Your task to perform on an android device: clear history in the chrome app Image 0: 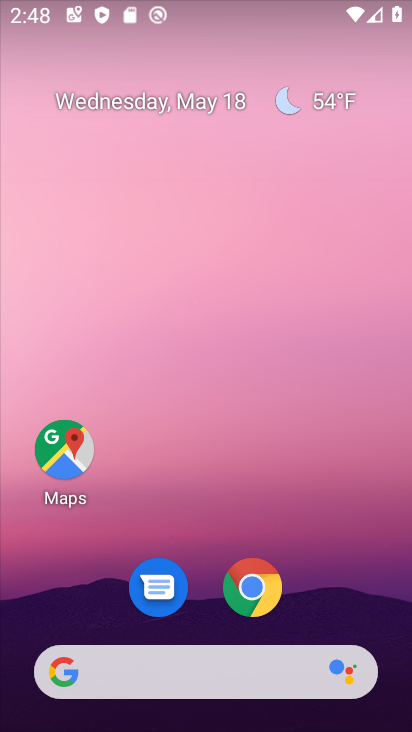
Step 0: drag from (198, 633) to (201, 363)
Your task to perform on an android device: clear history in the chrome app Image 1: 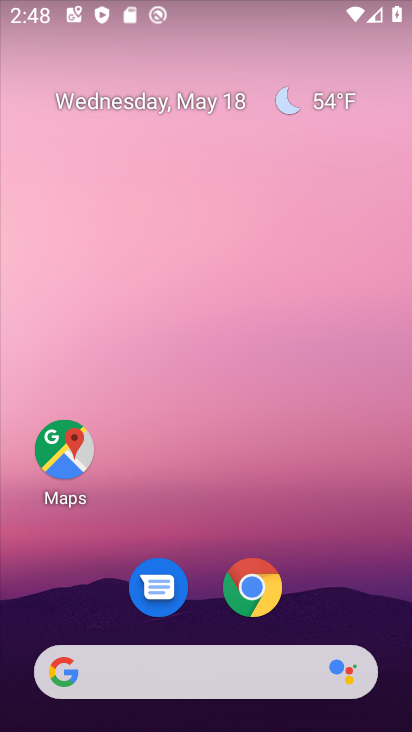
Step 1: click (254, 598)
Your task to perform on an android device: clear history in the chrome app Image 2: 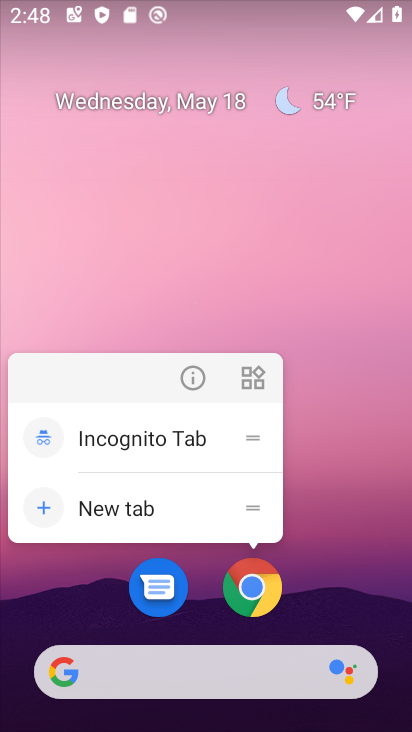
Step 2: click (178, 370)
Your task to perform on an android device: clear history in the chrome app Image 3: 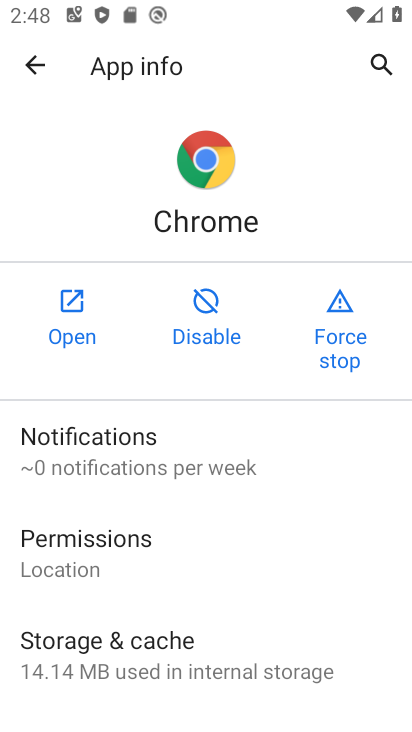
Step 3: click (76, 322)
Your task to perform on an android device: clear history in the chrome app Image 4: 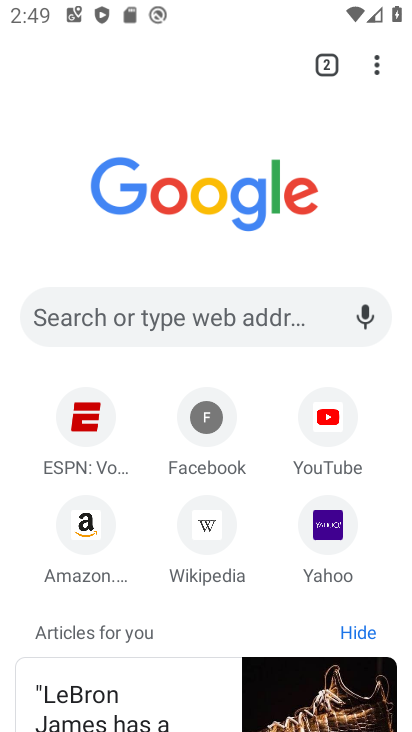
Step 4: click (371, 56)
Your task to perform on an android device: clear history in the chrome app Image 5: 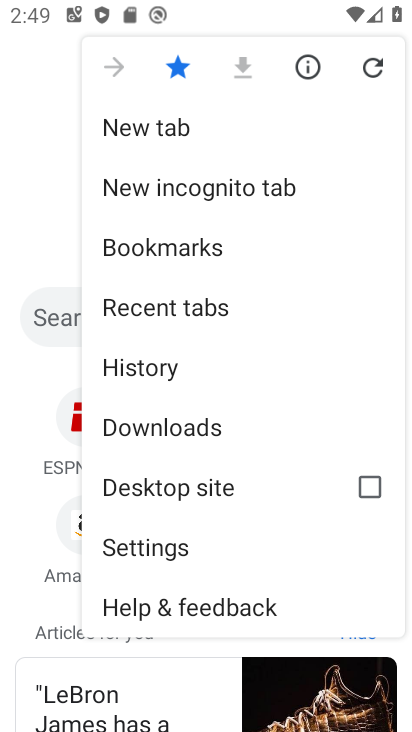
Step 5: click (173, 361)
Your task to perform on an android device: clear history in the chrome app Image 6: 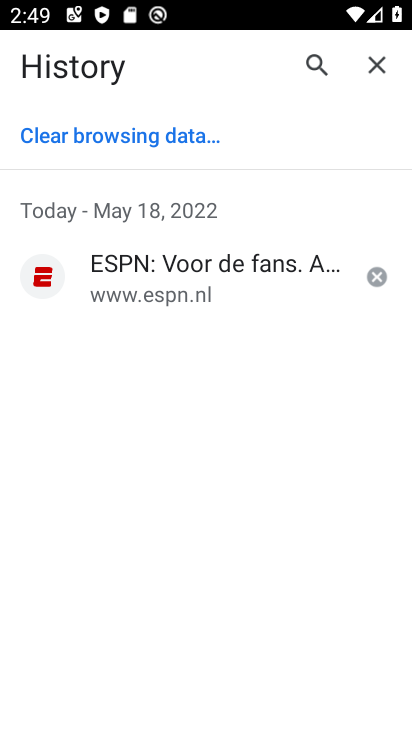
Step 6: click (52, 146)
Your task to perform on an android device: clear history in the chrome app Image 7: 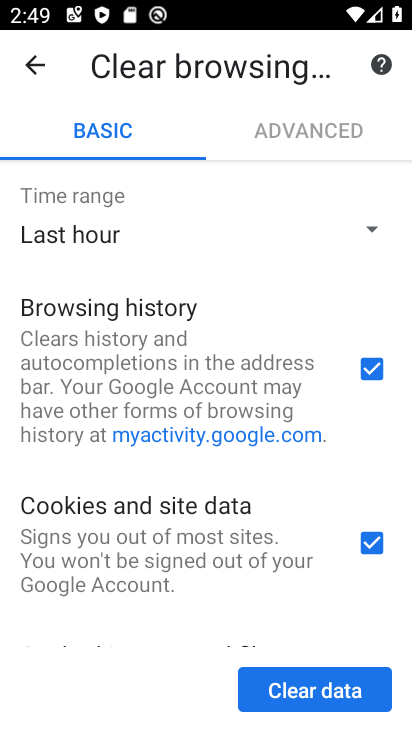
Step 7: drag from (139, 467) to (233, 188)
Your task to perform on an android device: clear history in the chrome app Image 8: 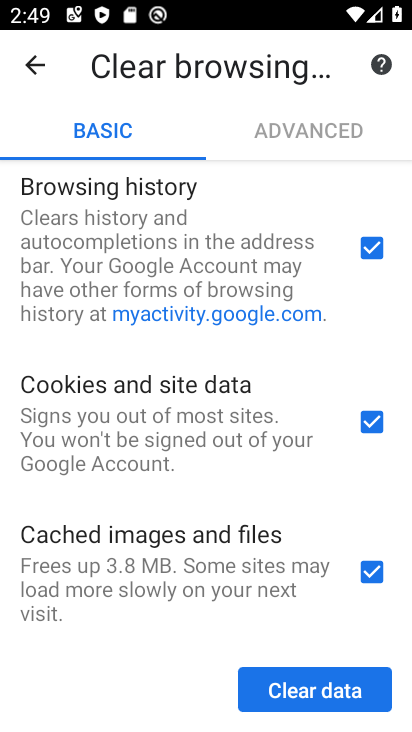
Step 8: click (256, 693)
Your task to perform on an android device: clear history in the chrome app Image 9: 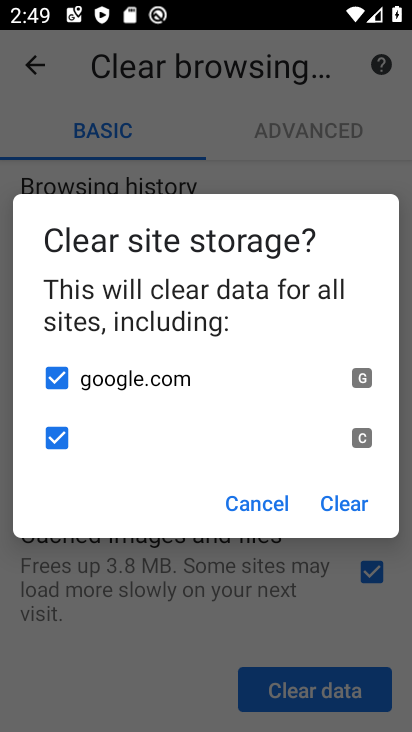
Step 9: click (349, 527)
Your task to perform on an android device: clear history in the chrome app Image 10: 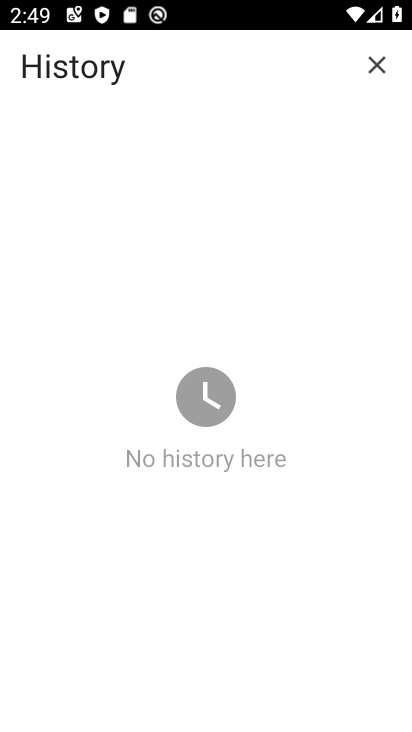
Step 10: task complete